Your task to perform on an android device: Open Yahoo.com Image 0: 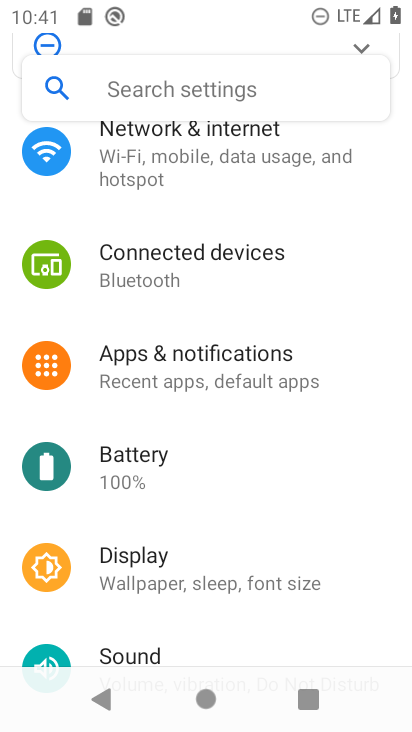
Step 0: press home button
Your task to perform on an android device: Open Yahoo.com Image 1: 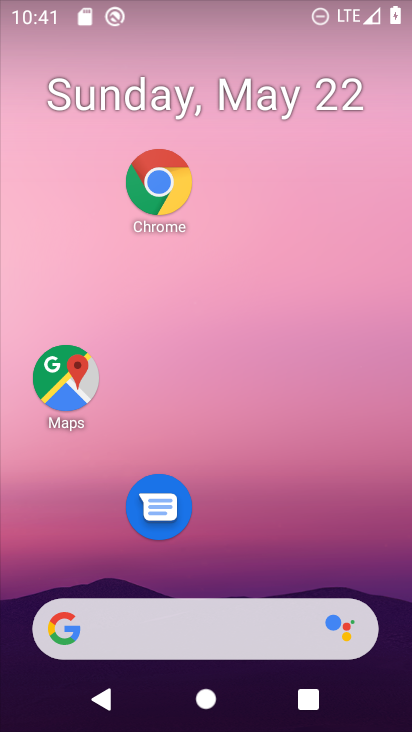
Step 1: click (113, 646)
Your task to perform on an android device: Open Yahoo.com Image 2: 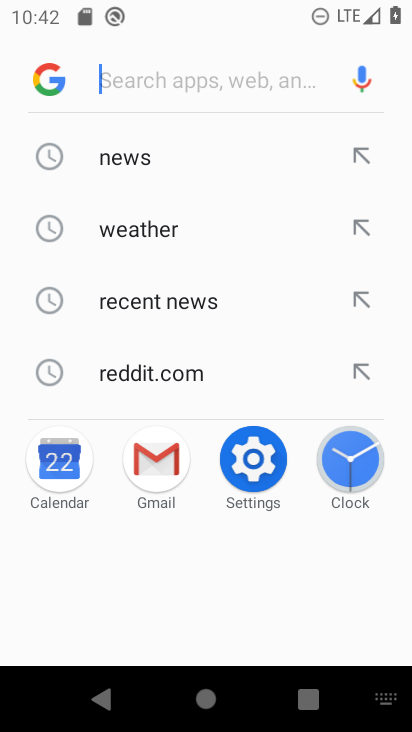
Step 2: type "yahoo.com"
Your task to perform on an android device: Open Yahoo.com Image 3: 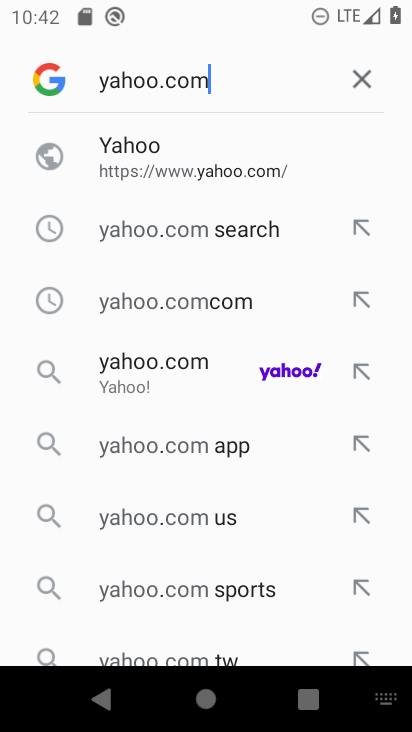
Step 3: click (273, 157)
Your task to perform on an android device: Open Yahoo.com Image 4: 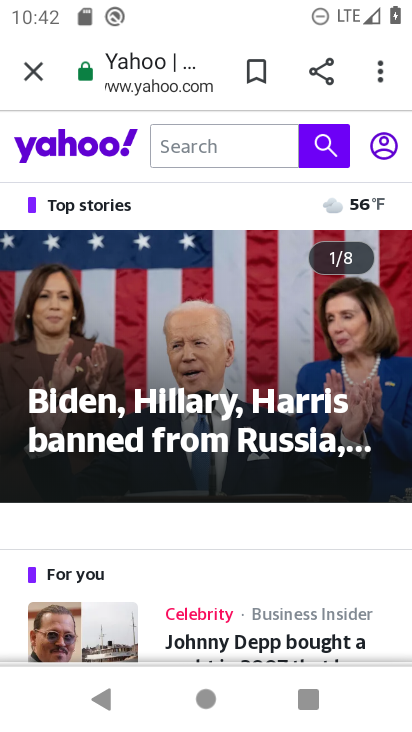
Step 4: task complete